Your task to perform on an android device: toggle show notifications on the lock screen Image 0: 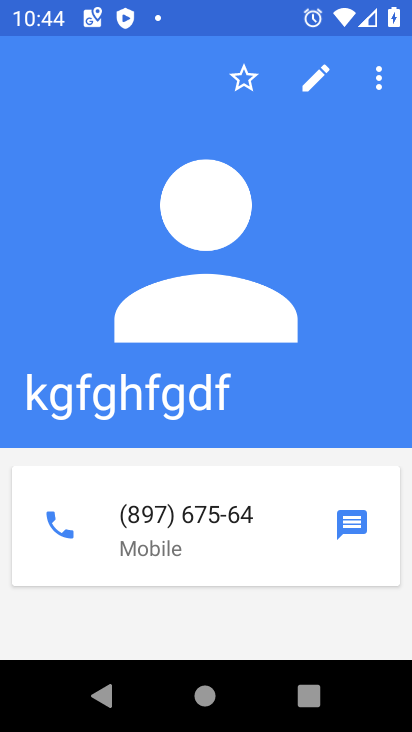
Step 0: press home button
Your task to perform on an android device: toggle show notifications on the lock screen Image 1: 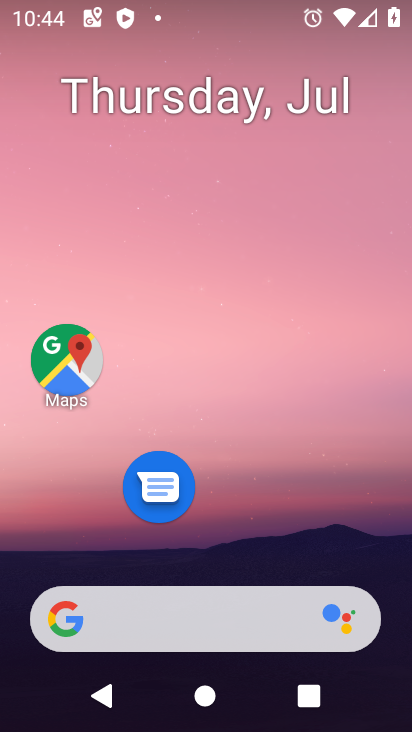
Step 1: drag from (250, 618) to (237, 168)
Your task to perform on an android device: toggle show notifications on the lock screen Image 2: 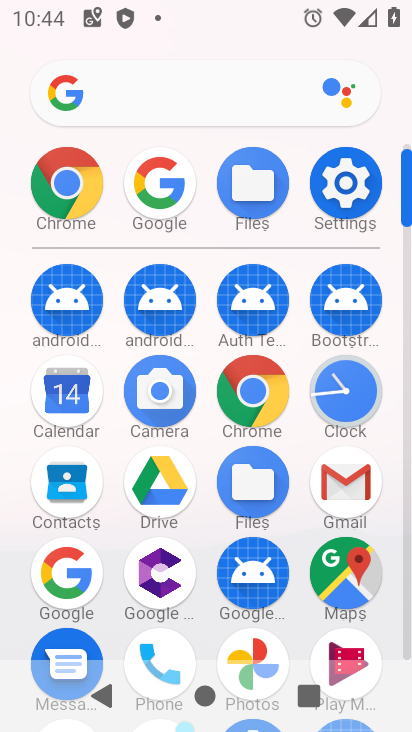
Step 2: drag from (245, 429) to (255, 200)
Your task to perform on an android device: toggle show notifications on the lock screen Image 3: 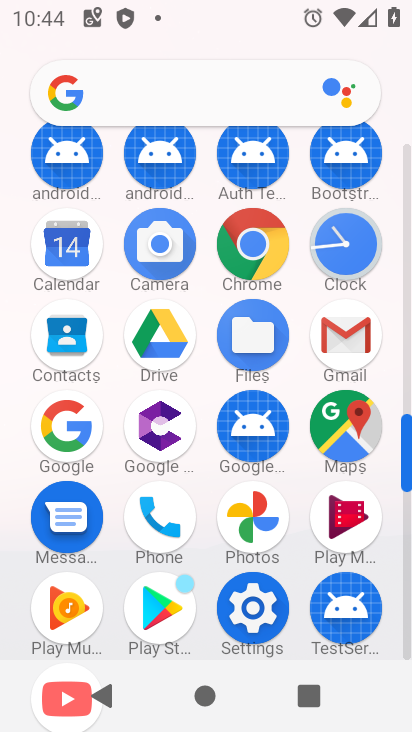
Step 3: click (267, 599)
Your task to perform on an android device: toggle show notifications on the lock screen Image 4: 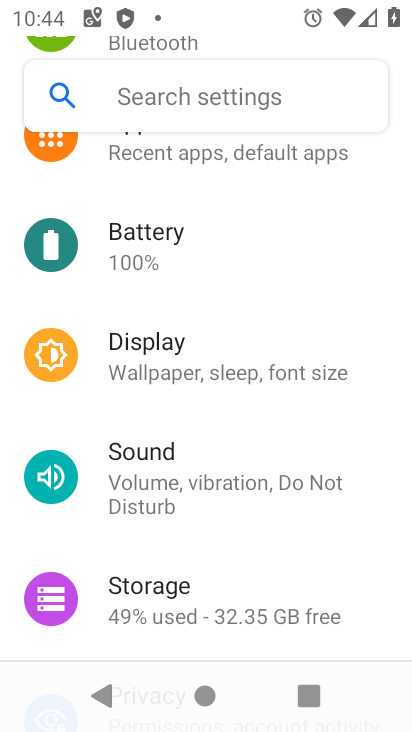
Step 4: drag from (265, 380) to (253, 731)
Your task to perform on an android device: toggle show notifications on the lock screen Image 5: 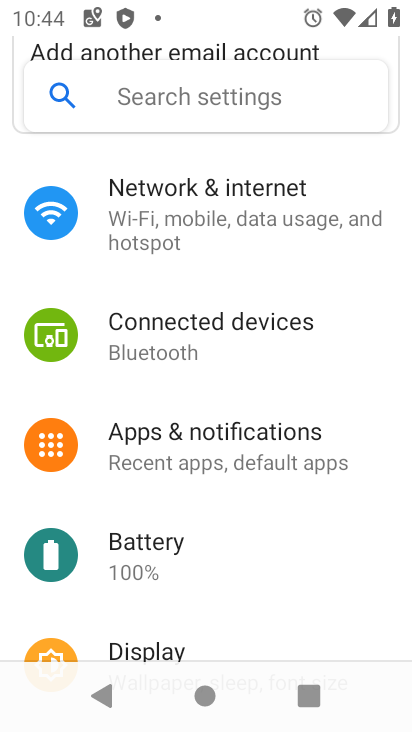
Step 5: drag from (270, 405) to (216, 669)
Your task to perform on an android device: toggle show notifications on the lock screen Image 6: 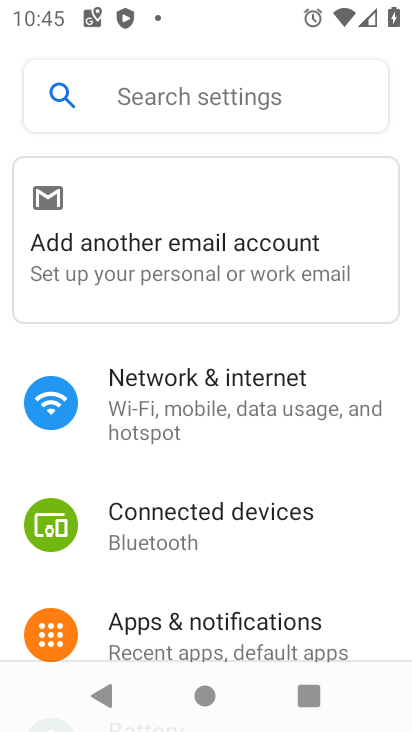
Step 6: drag from (228, 528) to (250, 269)
Your task to perform on an android device: toggle show notifications on the lock screen Image 7: 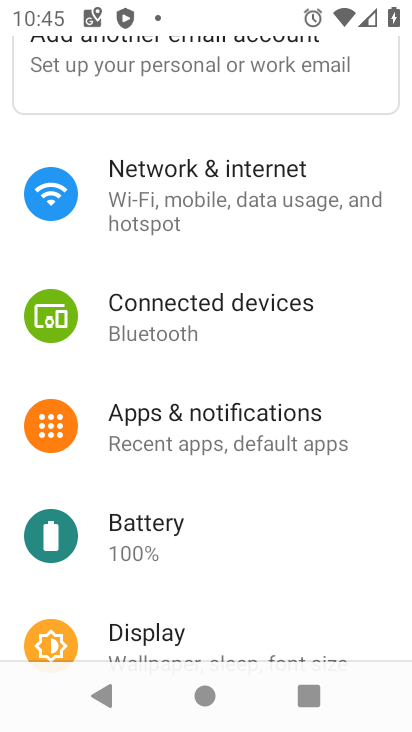
Step 7: drag from (231, 449) to (259, 256)
Your task to perform on an android device: toggle show notifications on the lock screen Image 8: 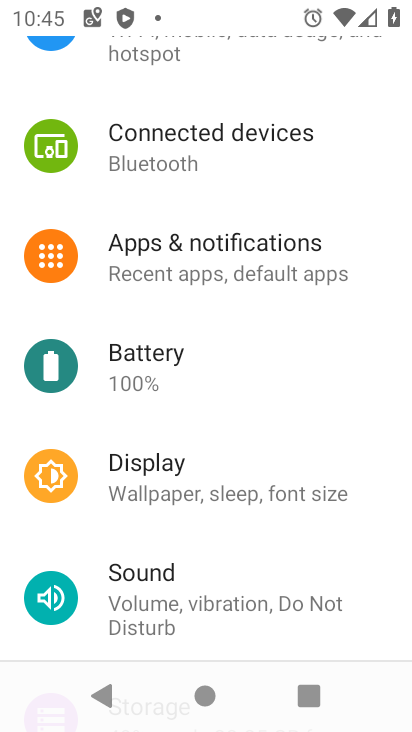
Step 8: click (199, 257)
Your task to perform on an android device: toggle show notifications on the lock screen Image 9: 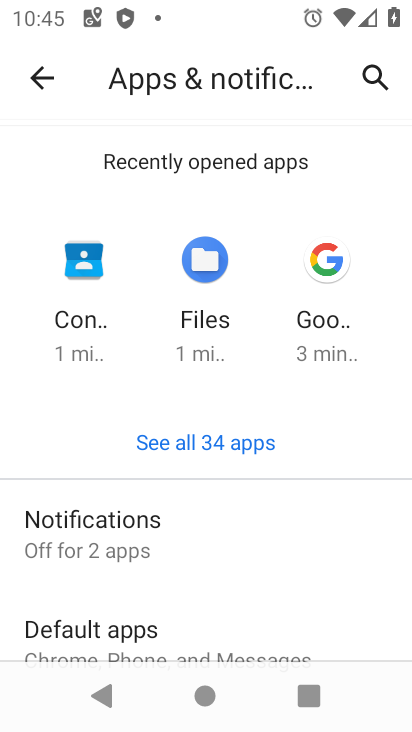
Step 9: click (173, 531)
Your task to perform on an android device: toggle show notifications on the lock screen Image 10: 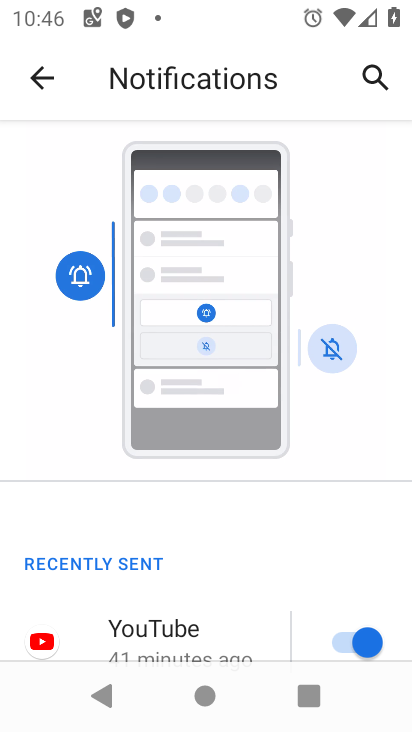
Step 10: drag from (205, 538) to (265, 0)
Your task to perform on an android device: toggle show notifications on the lock screen Image 11: 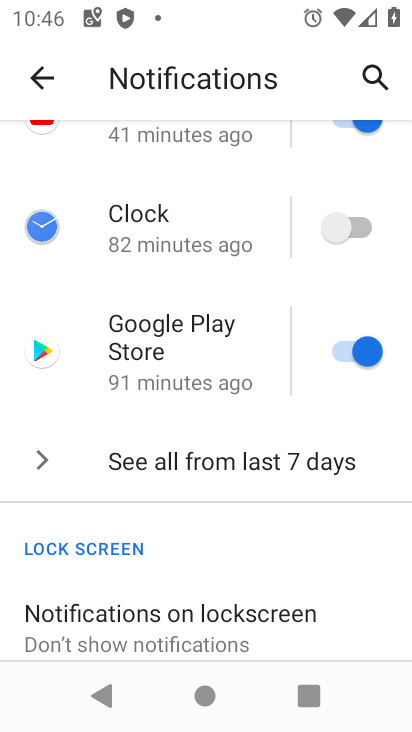
Step 11: drag from (220, 585) to (258, 179)
Your task to perform on an android device: toggle show notifications on the lock screen Image 12: 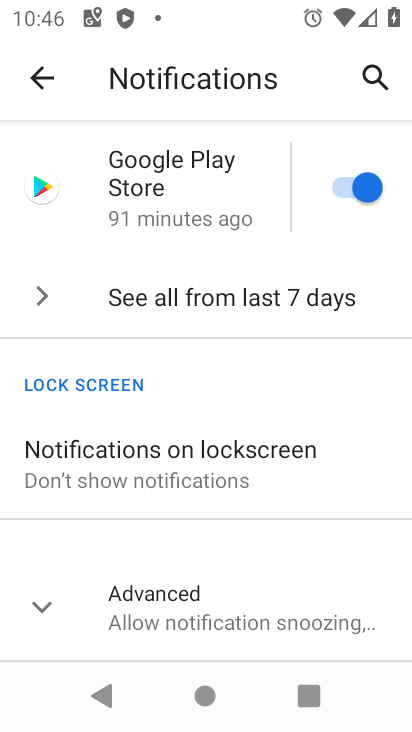
Step 12: click (212, 472)
Your task to perform on an android device: toggle show notifications on the lock screen Image 13: 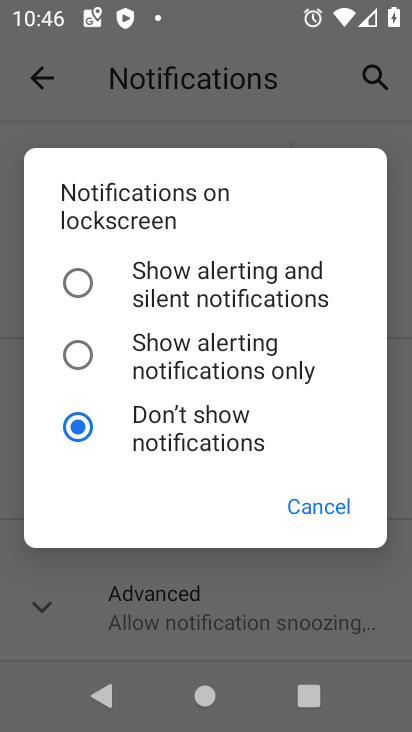
Step 13: click (109, 286)
Your task to perform on an android device: toggle show notifications on the lock screen Image 14: 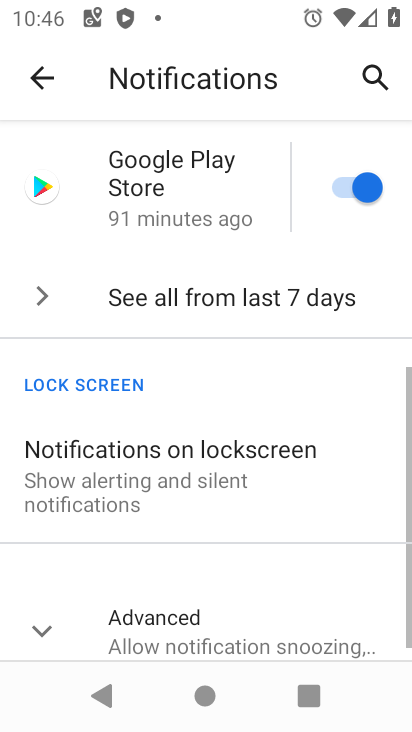
Step 14: task complete